Your task to perform on an android device: turn off priority inbox in the gmail app Image 0: 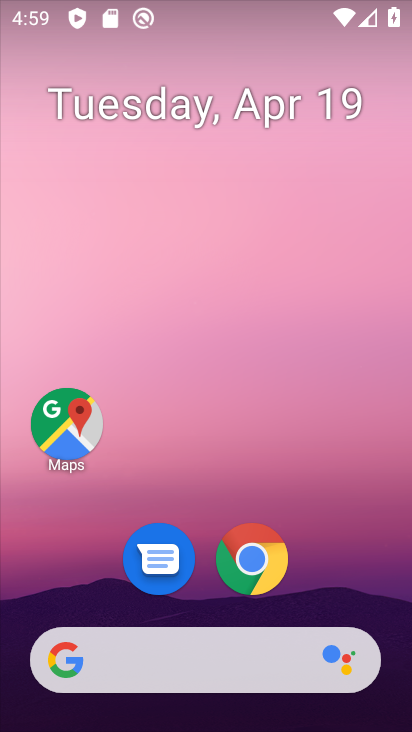
Step 0: drag from (330, 581) to (268, 108)
Your task to perform on an android device: turn off priority inbox in the gmail app Image 1: 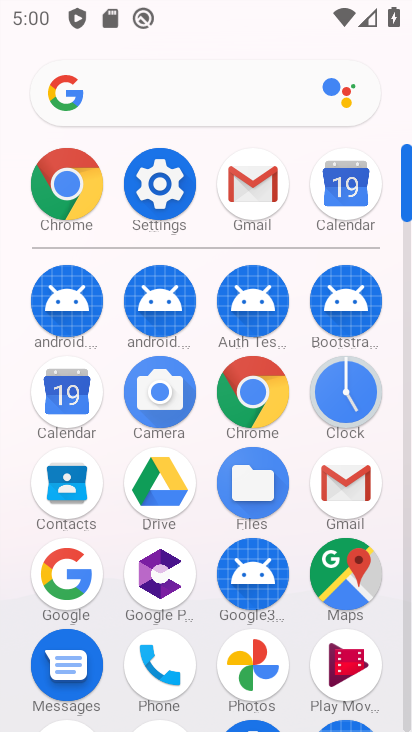
Step 1: click (249, 200)
Your task to perform on an android device: turn off priority inbox in the gmail app Image 2: 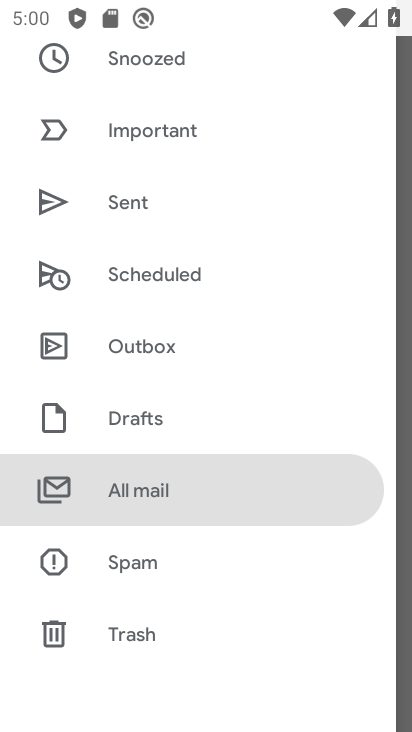
Step 2: drag from (204, 370) to (273, 29)
Your task to perform on an android device: turn off priority inbox in the gmail app Image 3: 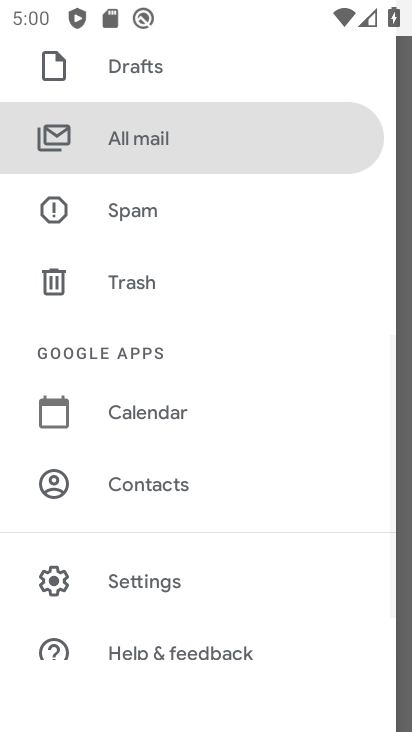
Step 3: click (182, 549)
Your task to perform on an android device: turn off priority inbox in the gmail app Image 4: 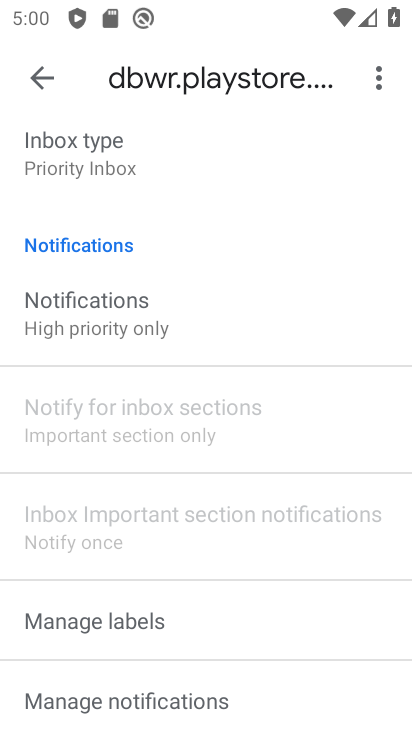
Step 4: click (169, 347)
Your task to perform on an android device: turn off priority inbox in the gmail app Image 5: 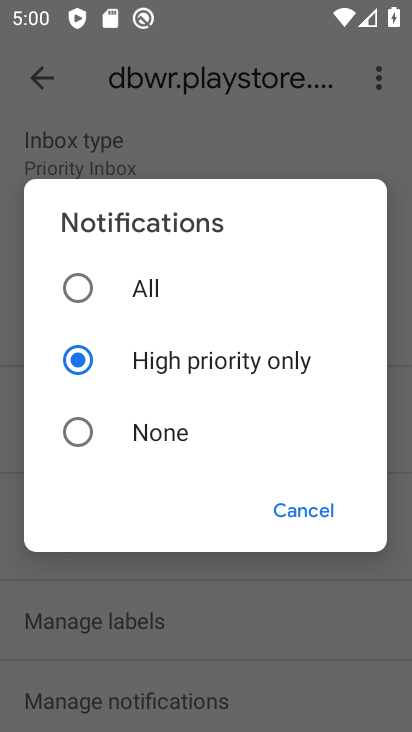
Step 5: click (171, 431)
Your task to perform on an android device: turn off priority inbox in the gmail app Image 6: 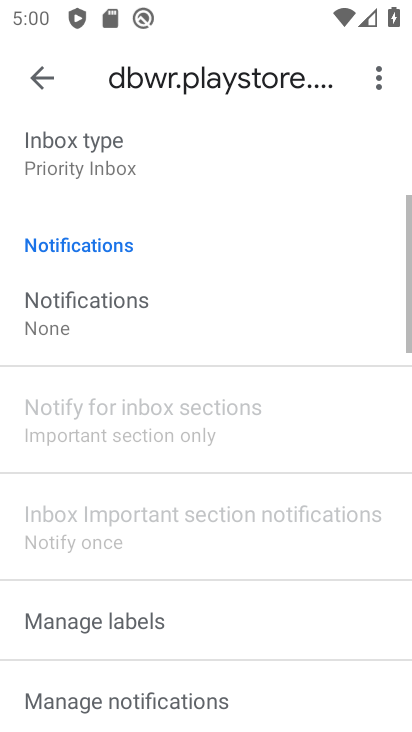
Step 6: task complete